Your task to perform on an android device: uninstall "Nova Launcher" Image 0: 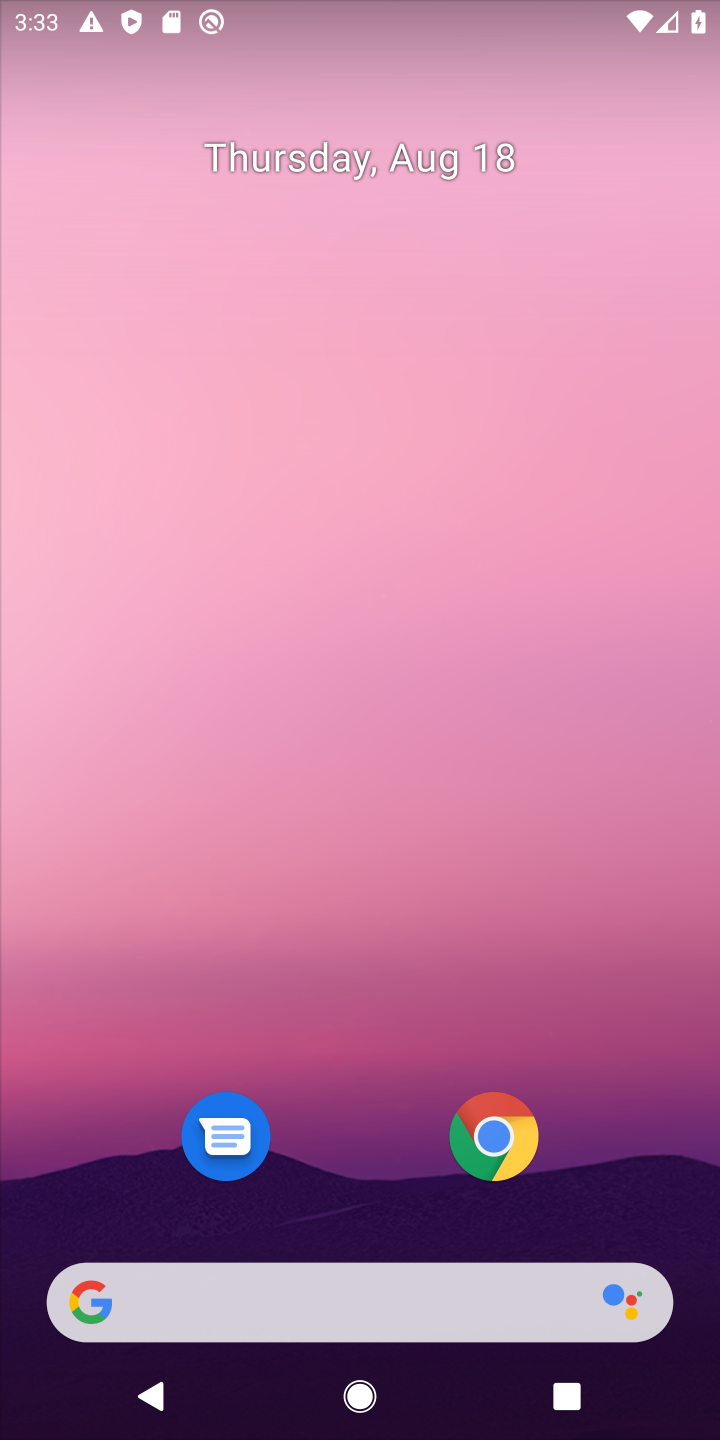
Step 0: click (397, 186)
Your task to perform on an android device: uninstall "Nova Launcher" Image 1: 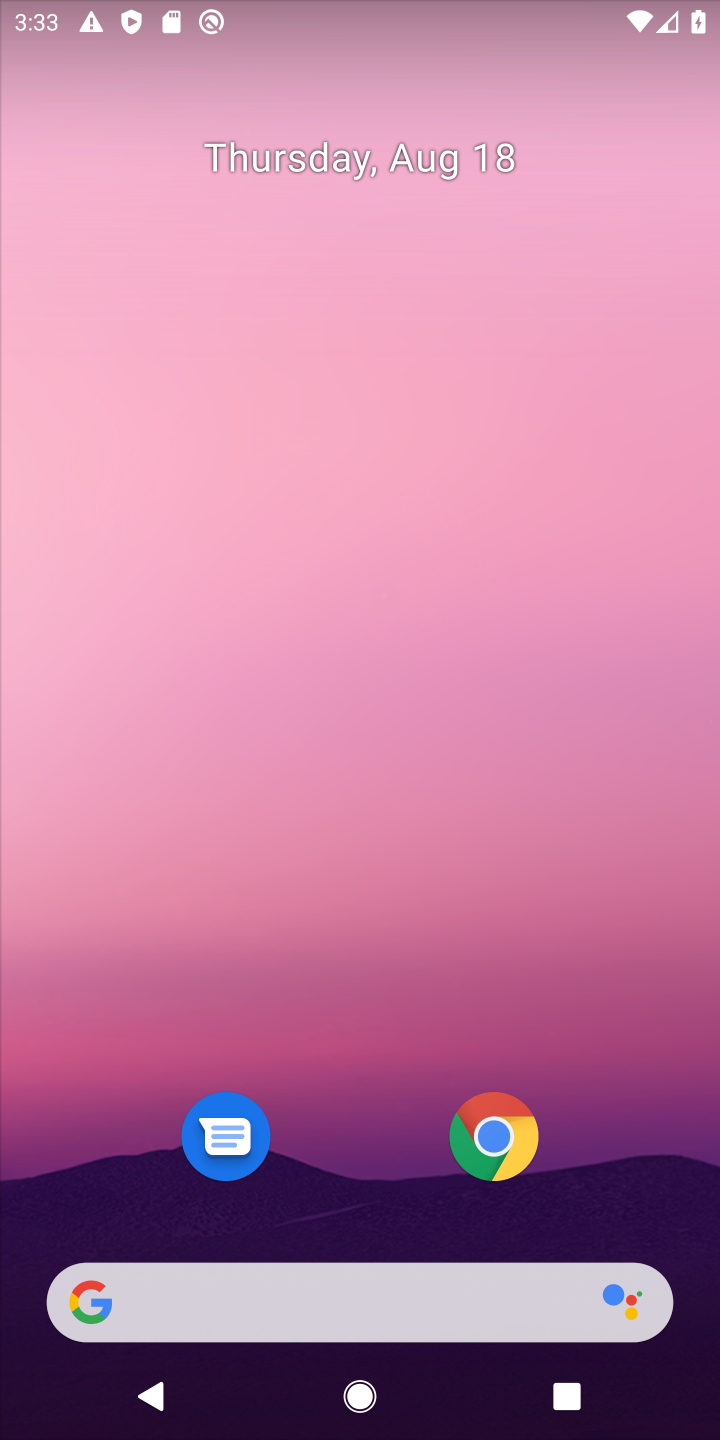
Step 1: drag from (326, 906) to (307, 82)
Your task to perform on an android device: uninstall "Nova Launcher" Image 2: 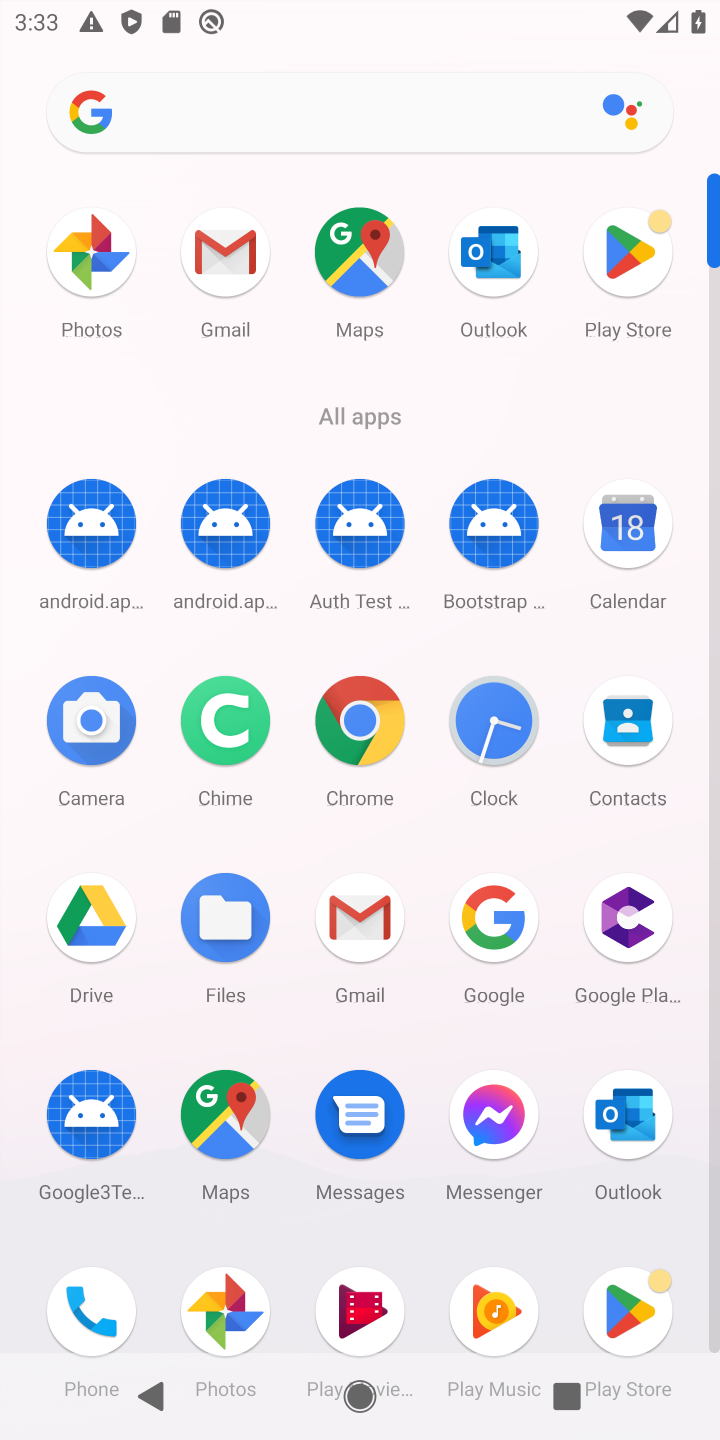
Step 2: click (636, 242)
Your task to perform on an android device: uninstall "Nova Launcher" Image 3: 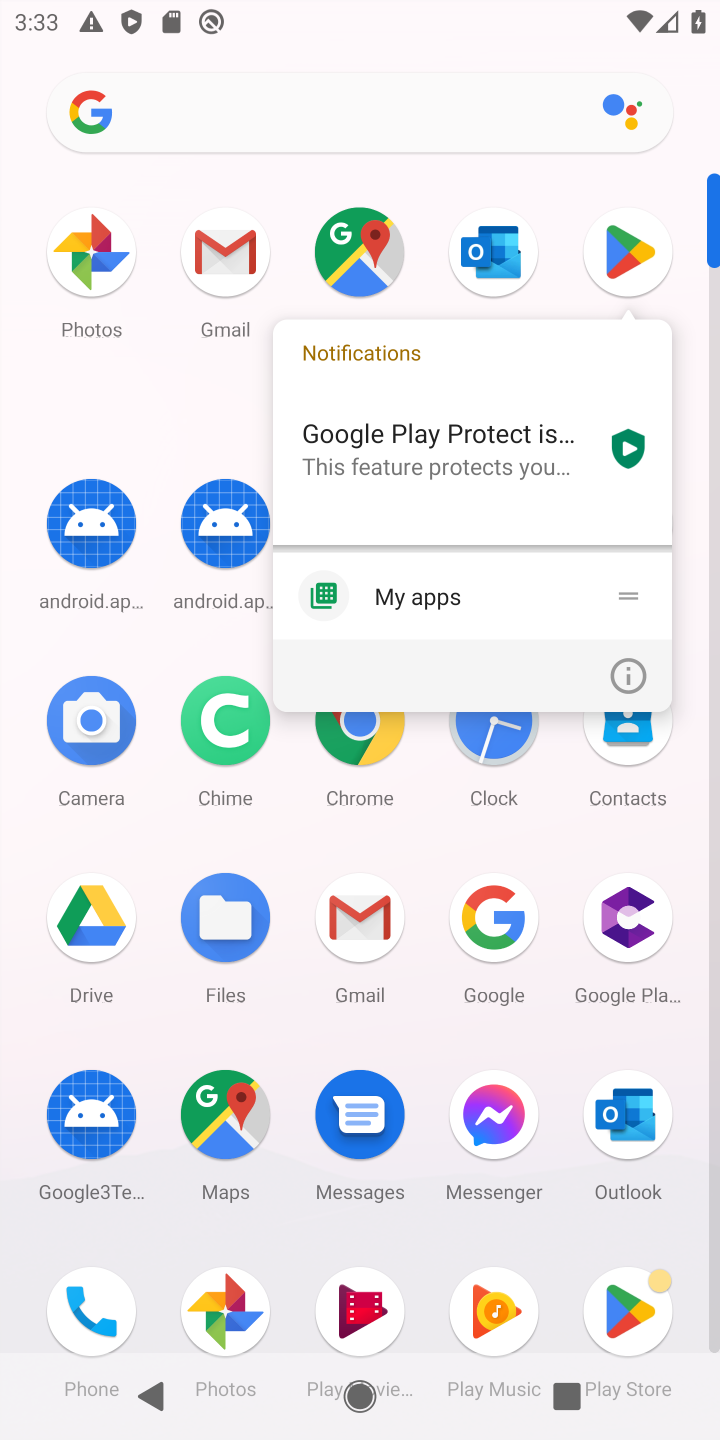
Step 3: click (619, 234)
Your task to perform on an android device: uninstall "Nova Launcher" Image 4: 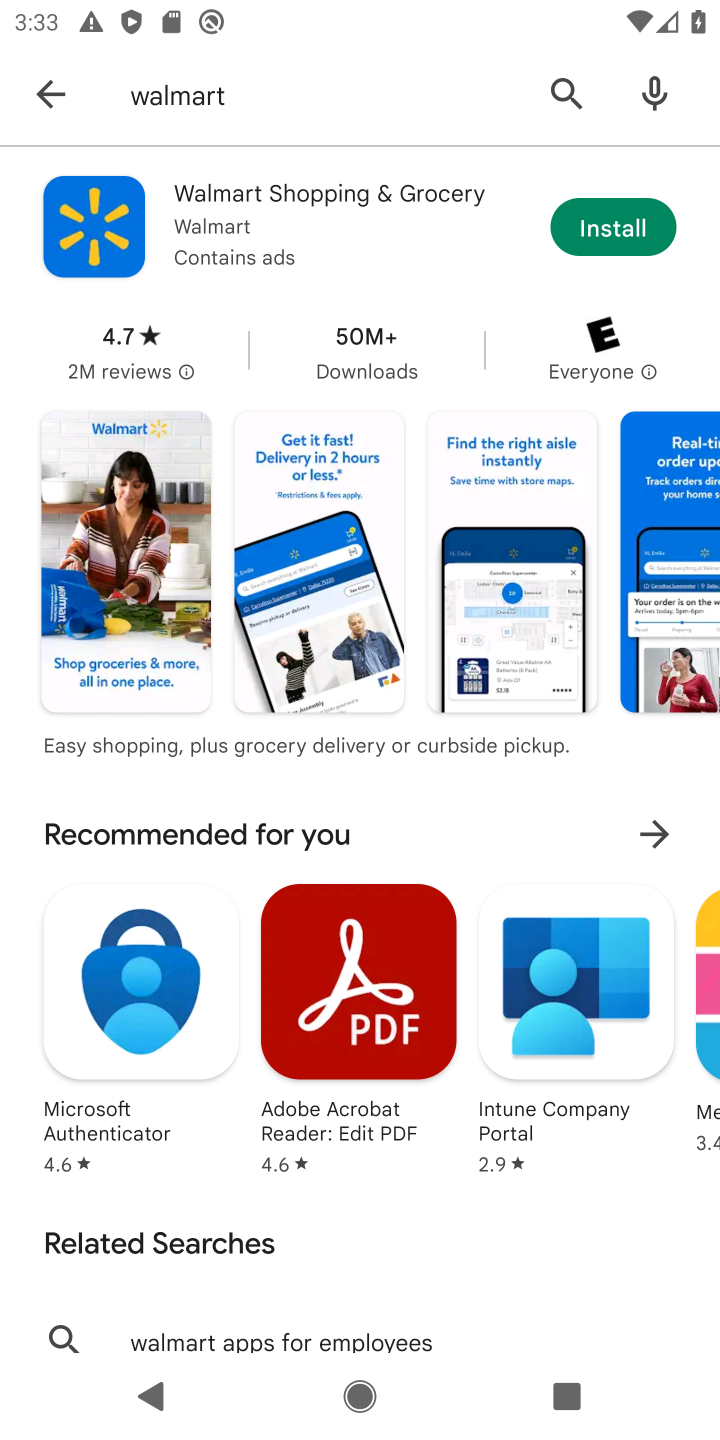
Step 4: click (300, 123)
Your task to perform on an android device: uninstall "Nova Launcher" Image 5: 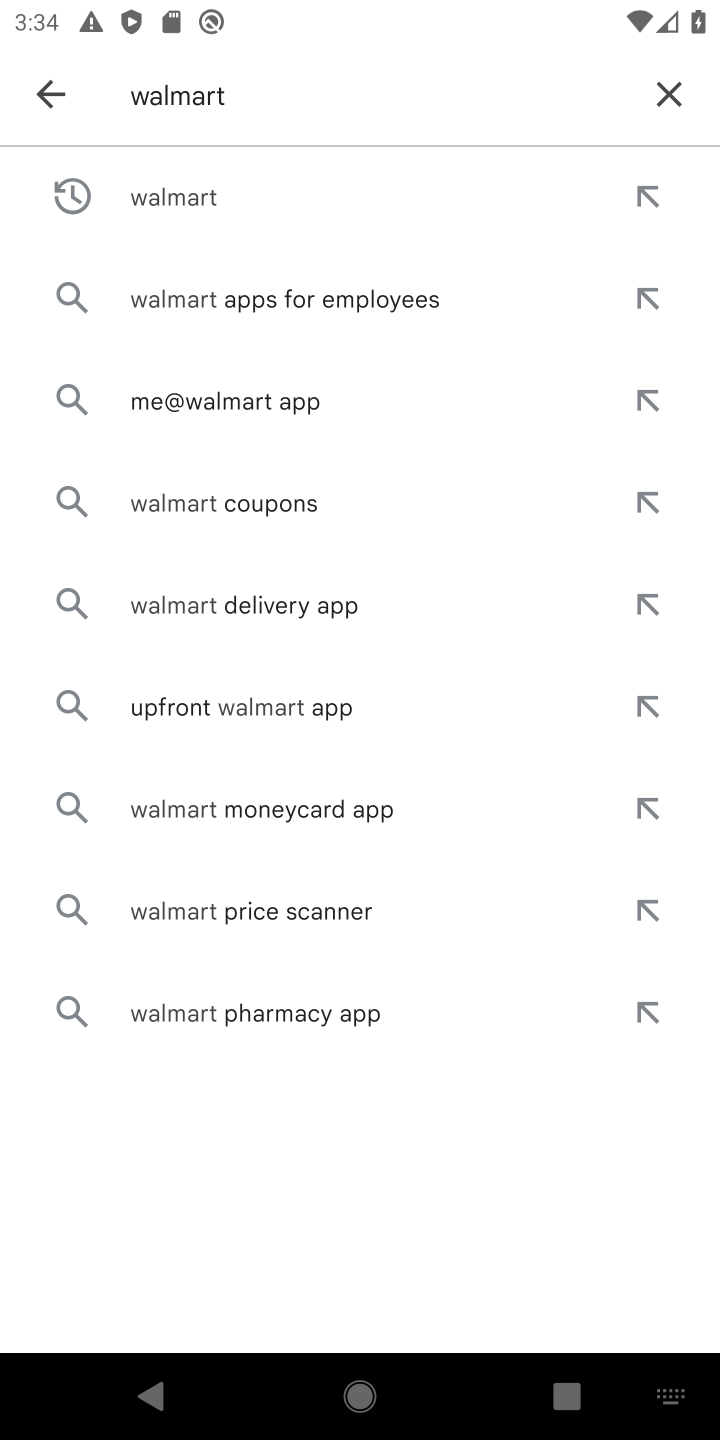
Step 5: click (673, 100)
Your task to perform on an android device: uninstall "Nova Launcher" Image 6: 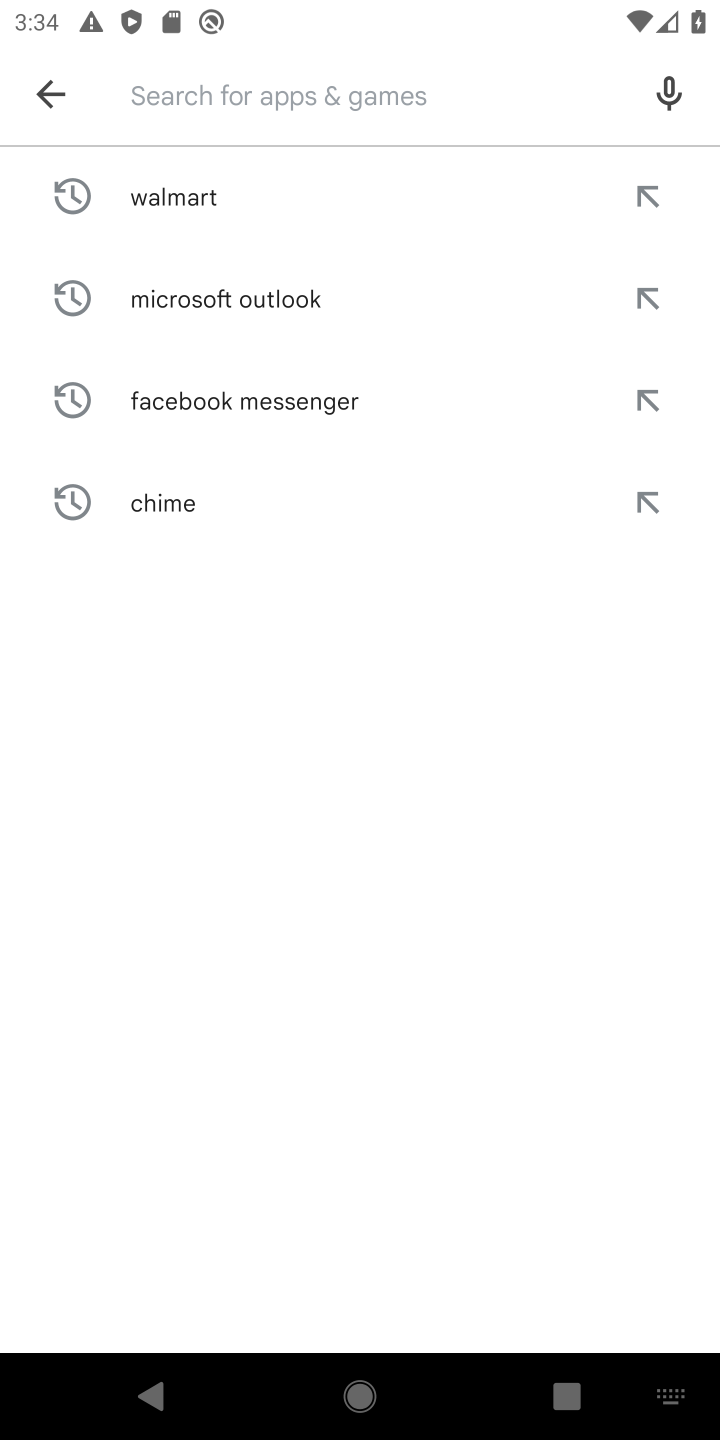
Step 6: type "nova launcher"
Your task to perform on an android device: uninstall "Nova Launcher" Image 7: 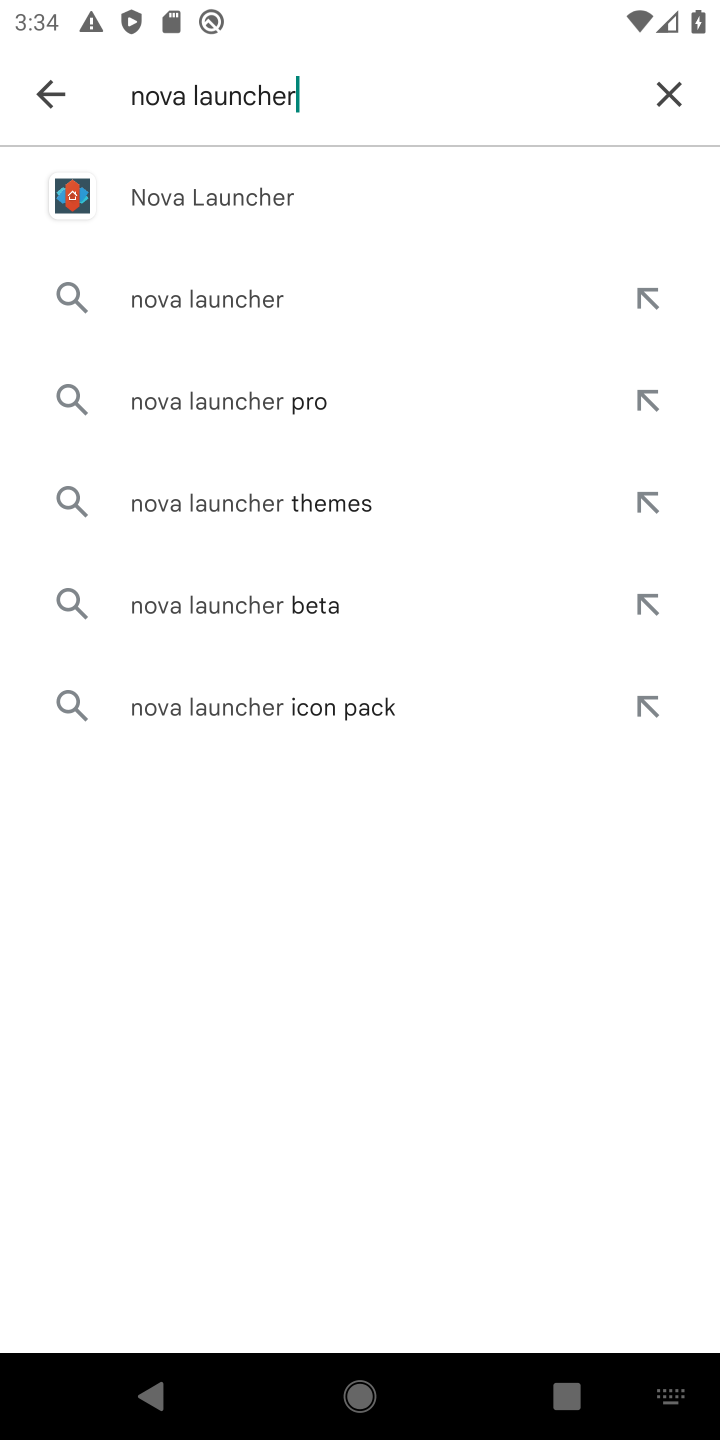
Step 7: click (231, 196)
Your task to perform on an android device: uninstall "Nova Launcher" Image 8: 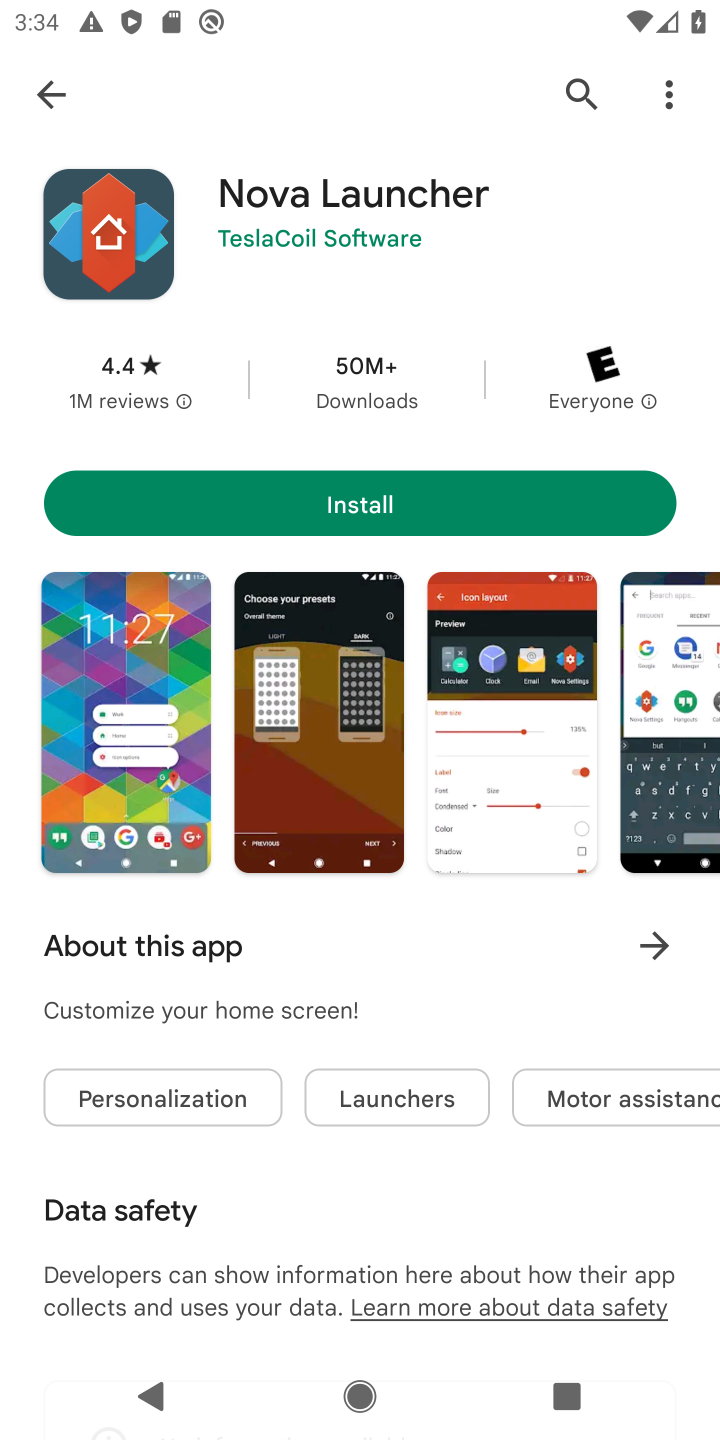
Step 8: task complete